Your task to perform on an android device: toggle improve location accuracy Image 0: 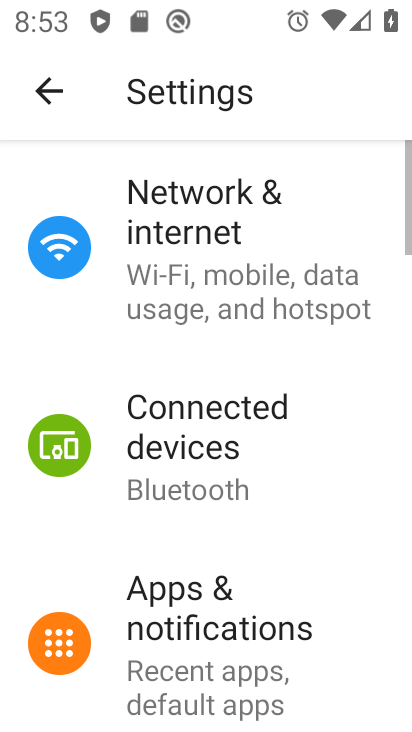
Step 0: press home button
Your task to perform on an android device: toggle improve location accuracy Image 1: 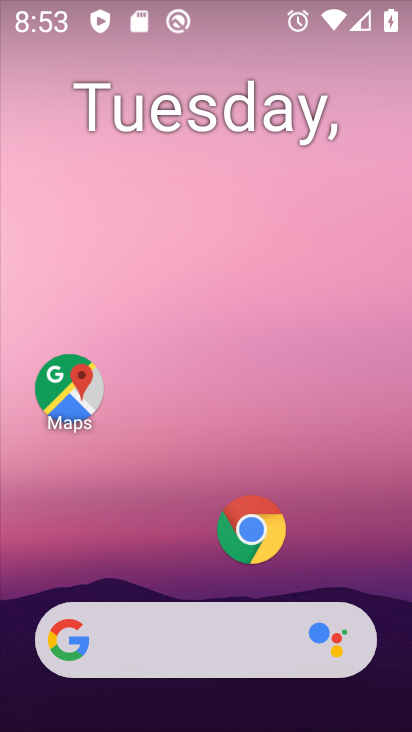
Step 1: drag from (198, 576) to (202, 122)
Your task to perform on an android device: toggle improve location accuracy Image 2: 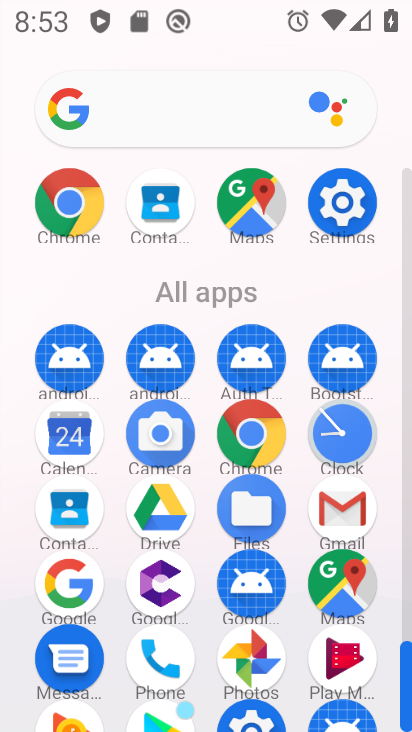
Step 2: click (337, 194)
Your task to perform on an android device: toggle improve location accuracy Image 3: 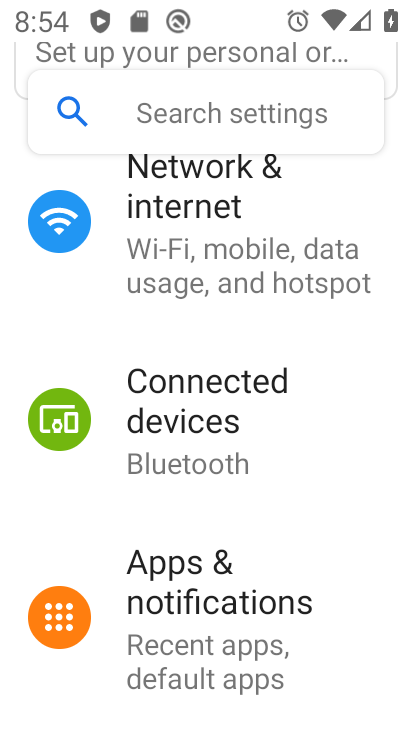
Step 3: drag from (226, 643) to (206, 109)
Your task to perform on an android device: toggle improve location accuracy Image 4: 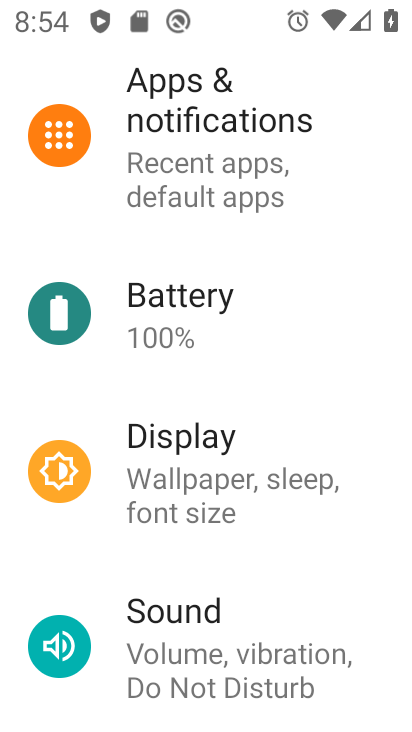
Step 4: drag from (212, 614) to (216, 208)
Your task to perform on an android device: toggle improve location accuracy Image 5: 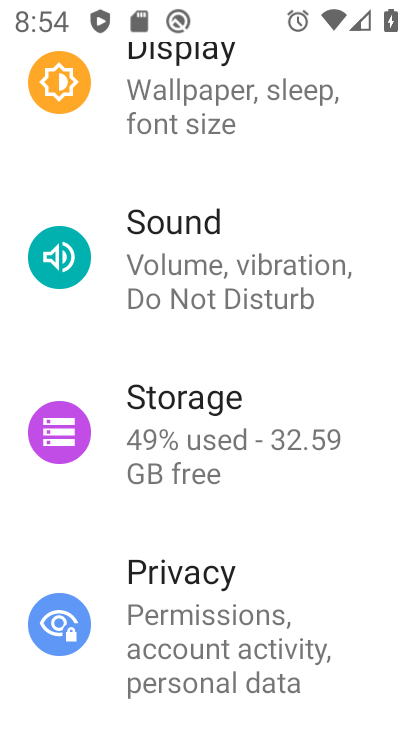
Step 5: drag from (202, 603) to (206, 212)
Your task to perform on an android device: toggle improve location accuracy Image 6: 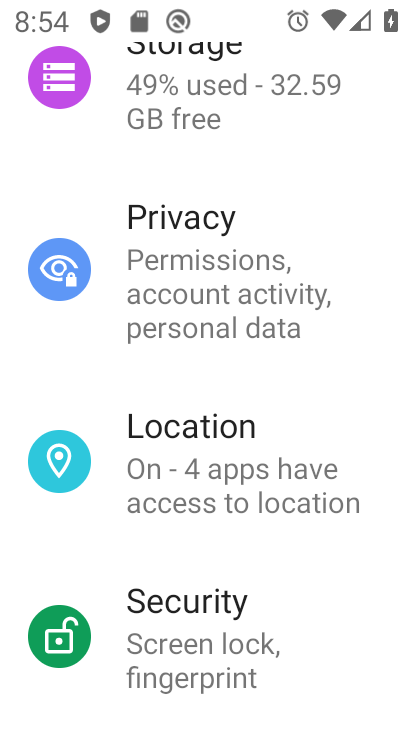
Step 6: click (206, 439)
Your task to perform on an android device: toggle improve location accuracy Image 7: 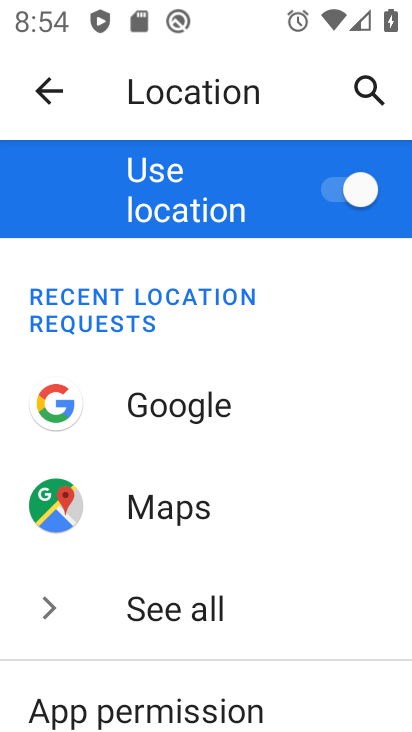
Step 7: drag from (219, 652) to (239, 228)
Your task to perform on an android device: toggle improve location accuracy Image 8: 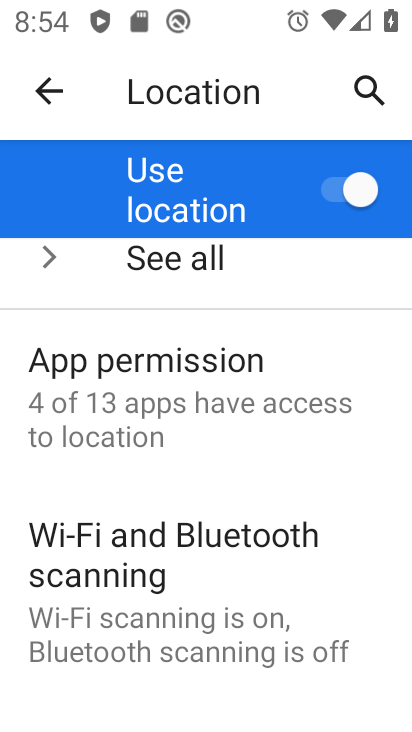
Step 8: drag from (214, 634) to (229, 301)
Your task to perform on an android device: toggle improve location accuracy Image 9: 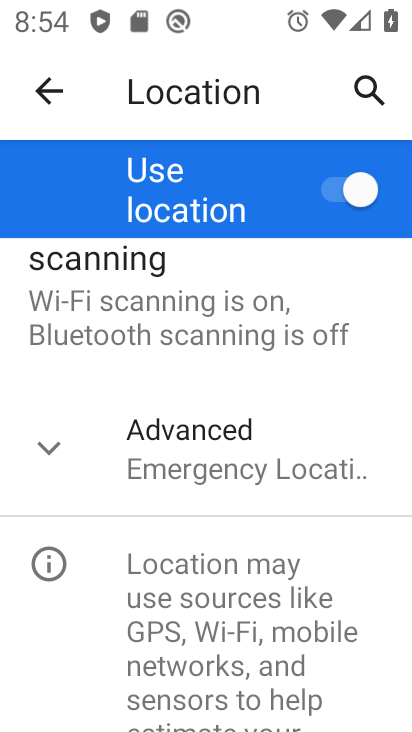
Step 9: click (50, 440)
Your task to perform on an android device: toggle improve location accuracy Image 10: 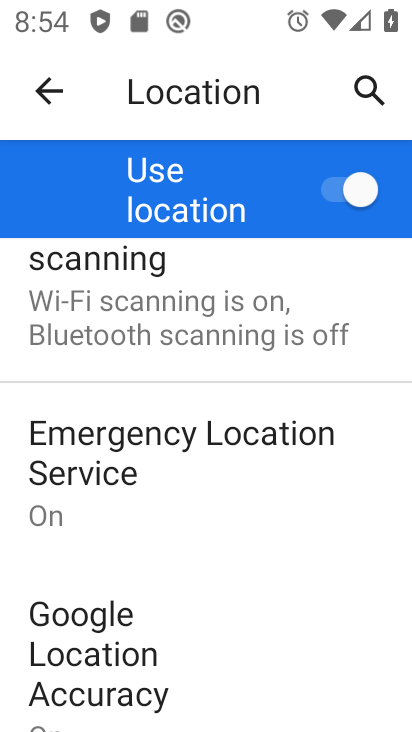
Step 10: click (168, 649)
Your task to perform on an android device: toggle improve location accuracy Image 11: 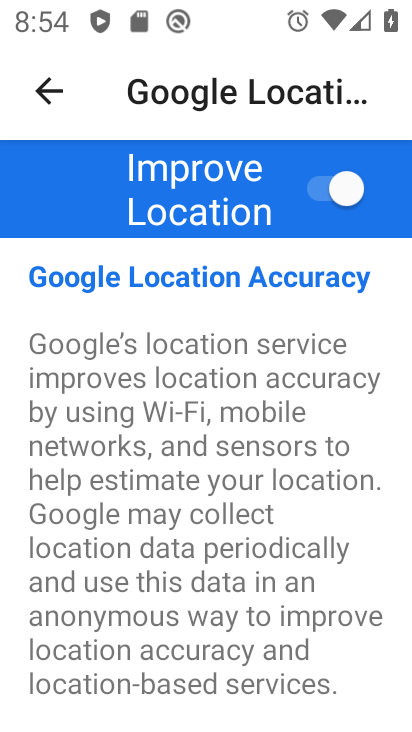
Step 11: click (320, 181)
Your task to perform on an android device: toggle improve location accuracy Image 12: 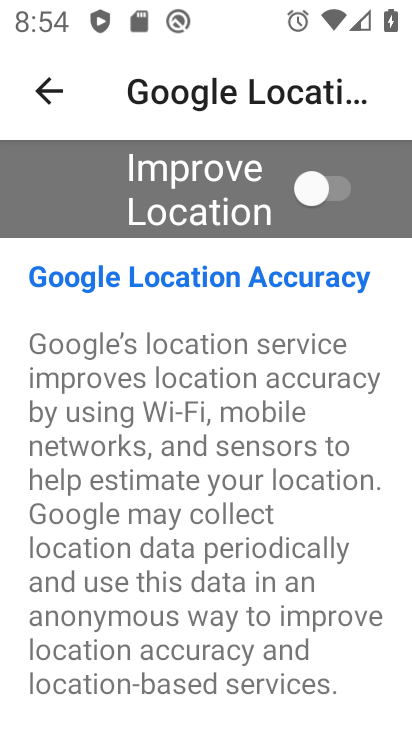
Step 12: task complete